Your task to perform on an android device: Search for seafood restaurants on Google Maps Image 0: 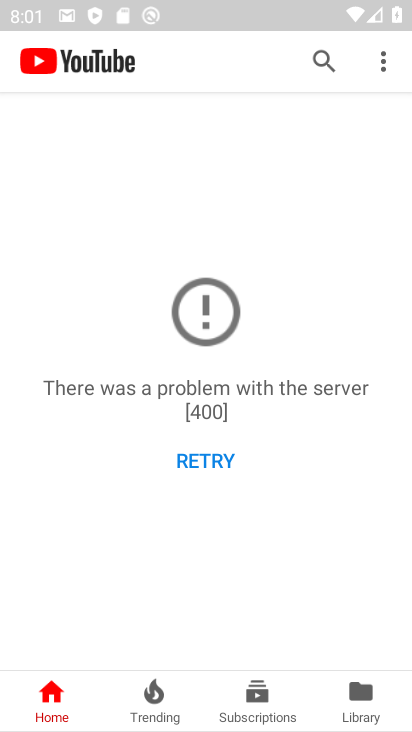
Step 0: press home button
Your task to perform on an android device: Search for seafood restaurants on Google Maps Image 1: 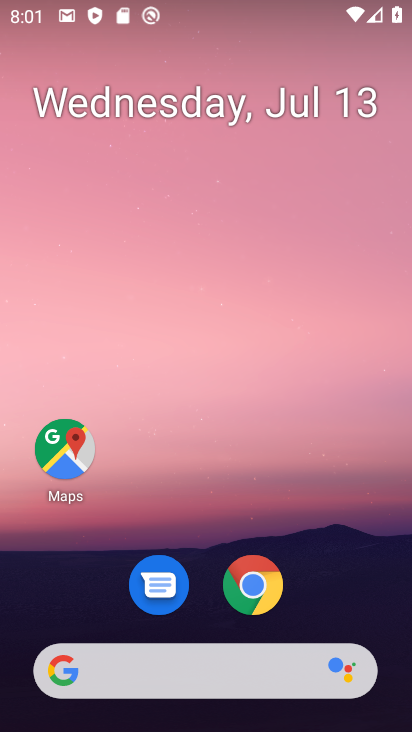
Step 1: click (68, 453)
Your task to perform on an android device: Search for seafood restaurants on Google Maps Image 2: 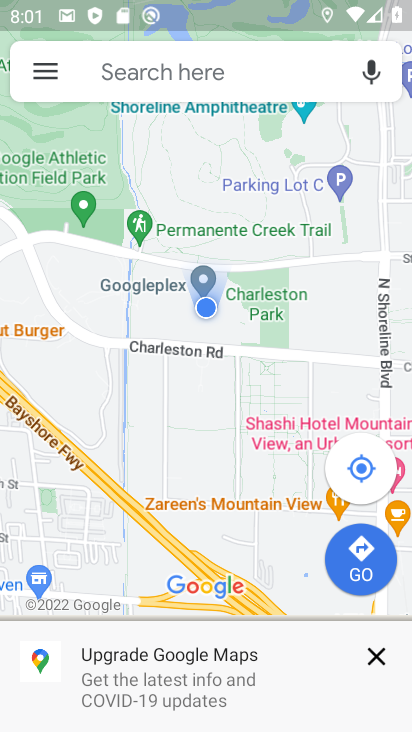
Step 2: click (226, 72)
Your task to perform on an android device: Search for seafood restaurants on Google Maps Image 3: 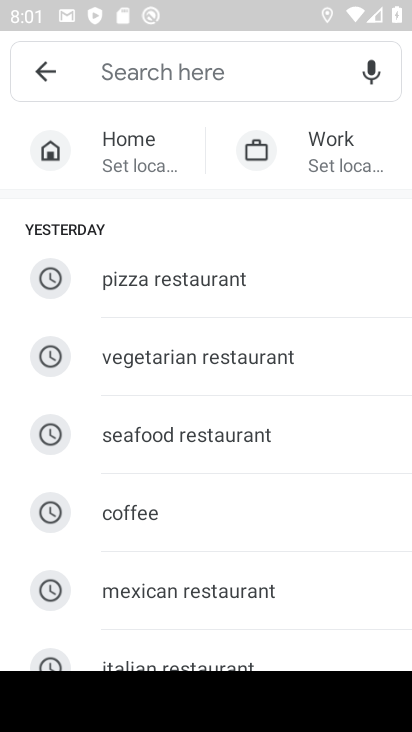
Step 3: drag from (228, 520) to (250, 433)
Your task to perform on an android device: Search for seafood restaurants on Google Maps Image 4: 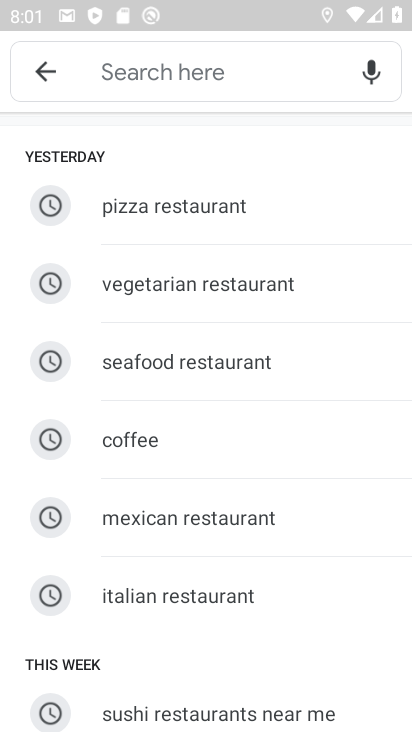
Step 4: click (243, 357)
Your task to perform on an android device: Search for seafood restaurants on Google Maps Image 5: 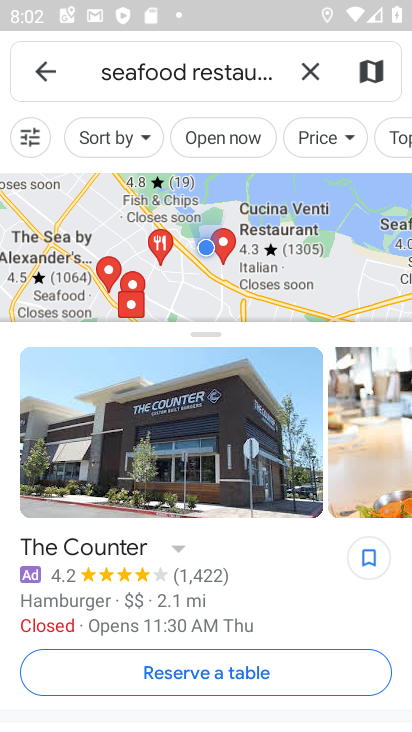
Step 5: task complete